Your task to perform on an android device: read, delete, or share a saved page in the chrome app Image 0: 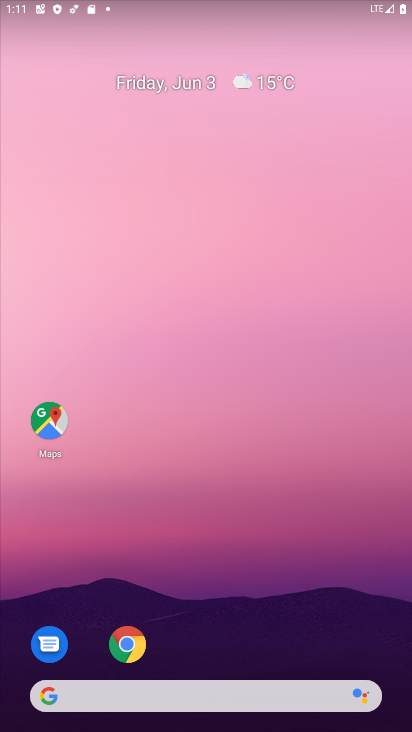
Step 0: click (137, 640)
Your task to perform on an android device: read, delete, or share a saved page in the chrome app Image 1: 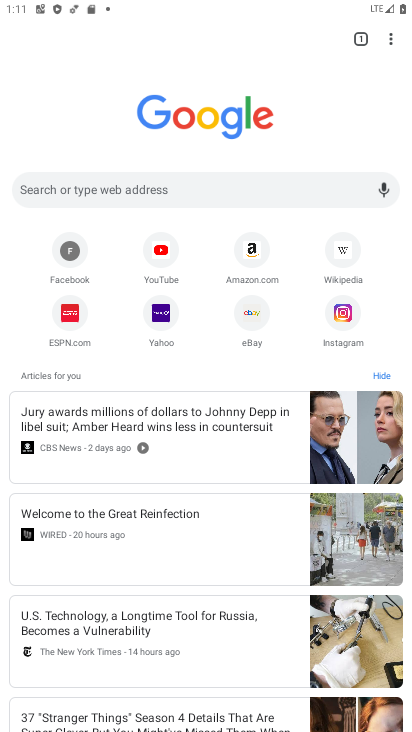
Step 1: click (394, 39)
Your task to perform on an android device: read, delete, or share a saved page in the chrome app Image 2: 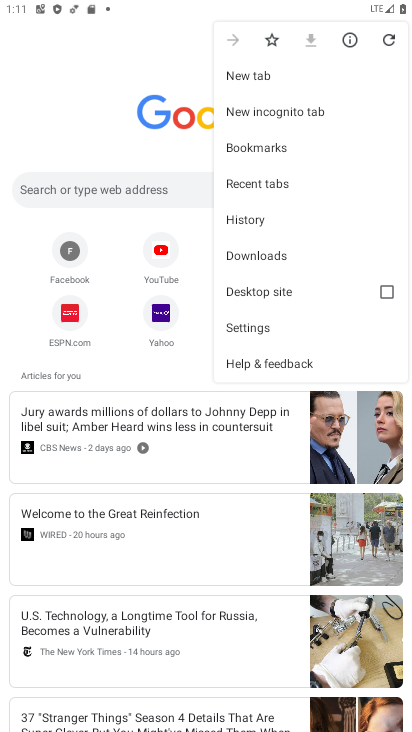
Step 2: click (255, 326)
Your task to perform on an android device: read, delete, or share a saved page in the chrome app Image 3: 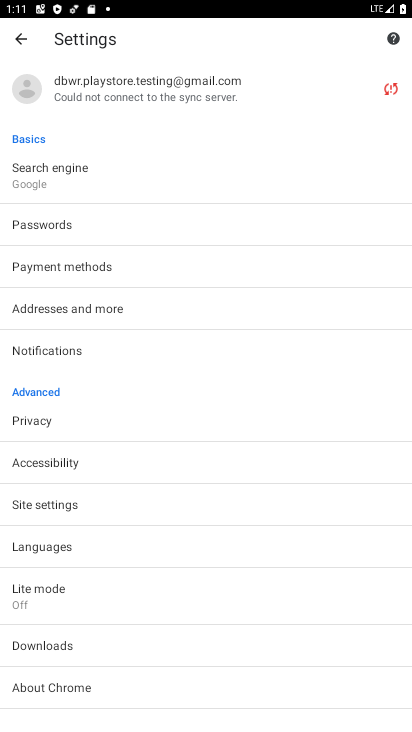
Step 3: click (29, 36)
Your task to perform on an android device: read, delete, or share a saved page in the chrome app Image 4: 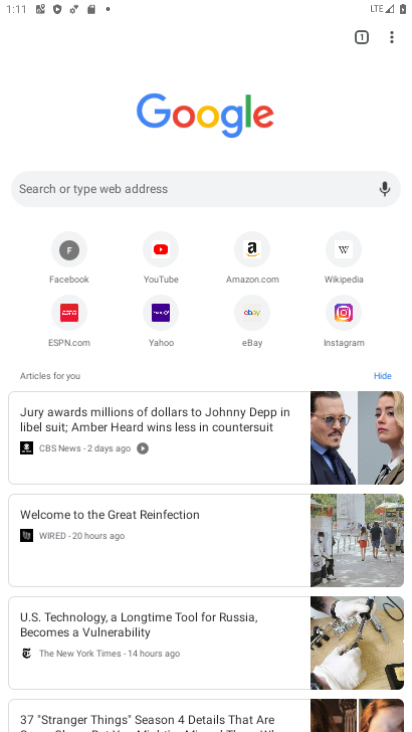
Step 4: task complete